Your task to perform on an android device: Go to CNN.com Image 0: 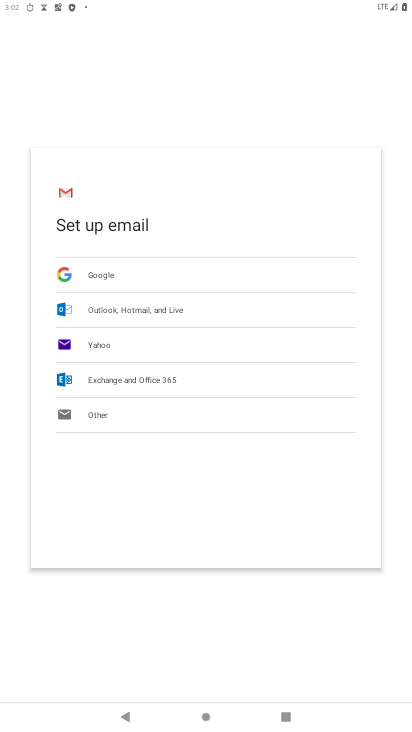
Step 0: press home button
Your task to perform on an android device: Go to CNN.com Image 1: 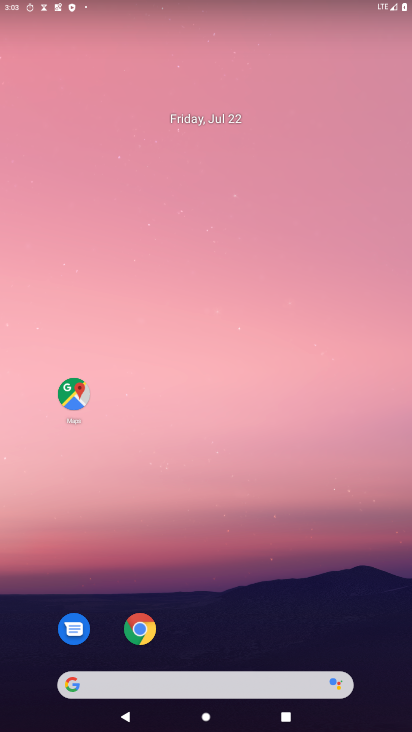
Step 1: drag from (273, 534) to (369, 0)
Your task to perform on an android device: Go to CNN.com Image 2: 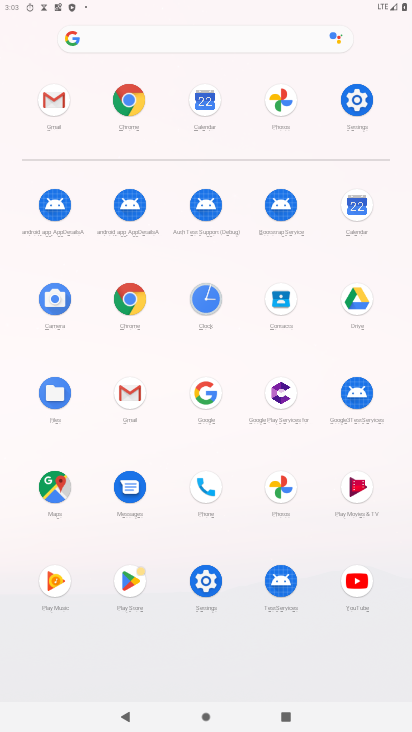
Step 2: click (127, 299)
Your task to perform on an android device: Go to CNN.com Image 3: 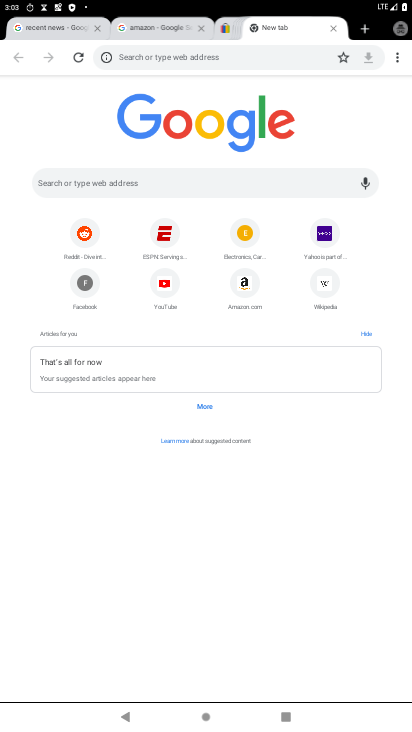
Step 3: click (164, 53)
Your task to perform on an android device: Go to CNN.com Image 4: 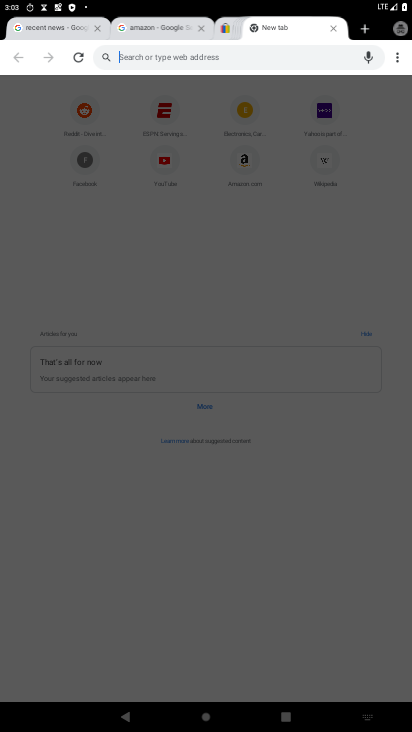
Step 4: type "cnn.com"
Your task to perform on an android device: Go to CNN.com Image 5: 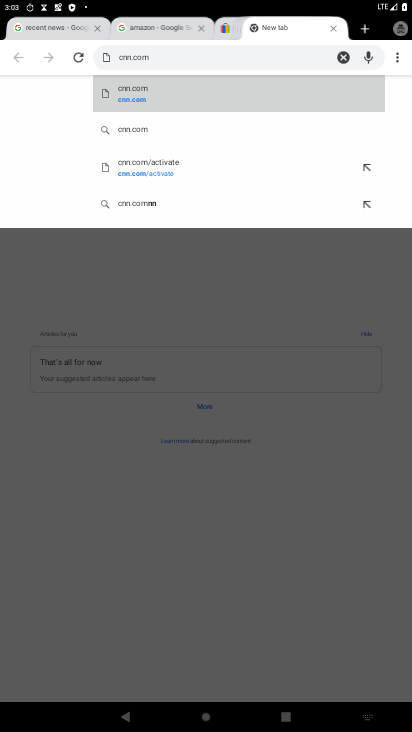
Step 5: click (257, 84)
Your task to perform on an android device: Go to CNN.com Image 6: 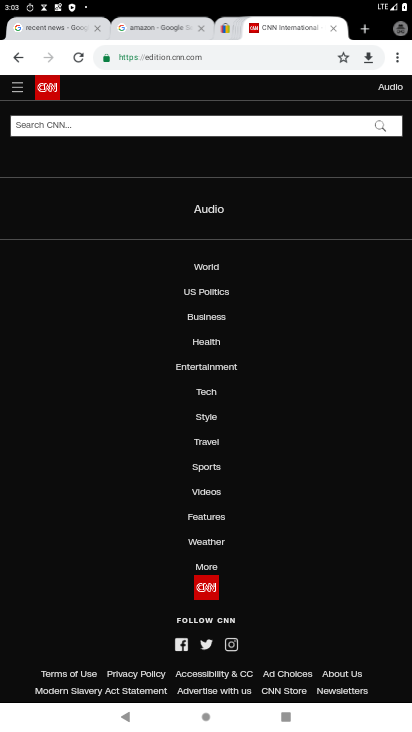
Step 6: task complete